Your task to perform on an android device: Open sound settings Image 0: 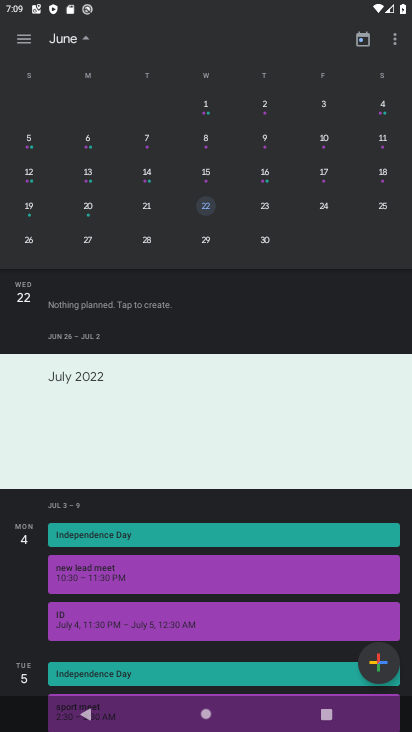
Step 0: press home button
Your task to perform on an android device: Open sound settings Image 1: 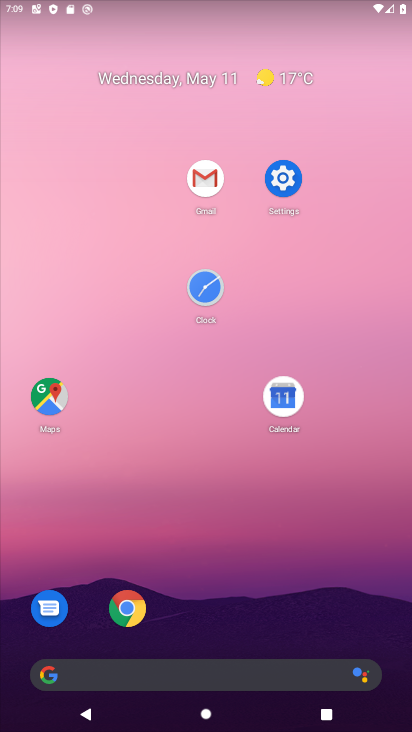
Step 1: click (274, 186)
Your task to perform on an android device: Open sound settings Image 2: 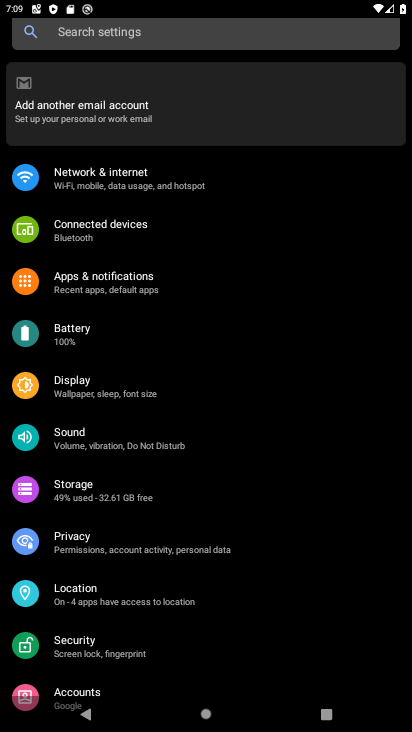
Step 2: click (139, 412)
Your task to perform on an android device: Open sound settings Image 3: 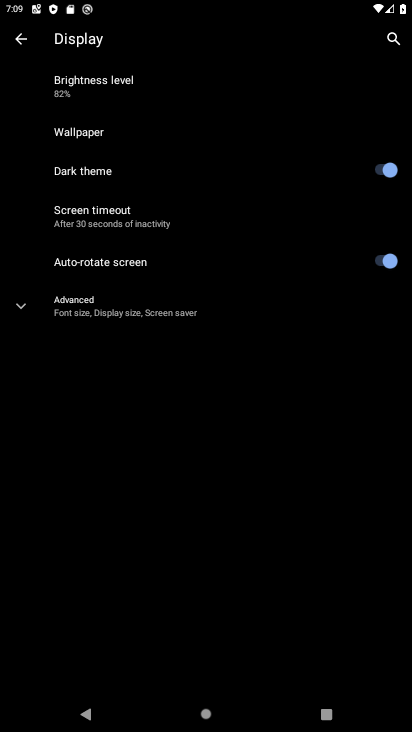
Step 3: click (36, 41)
Your task to perform on an android device: Open sound settings Image 4: 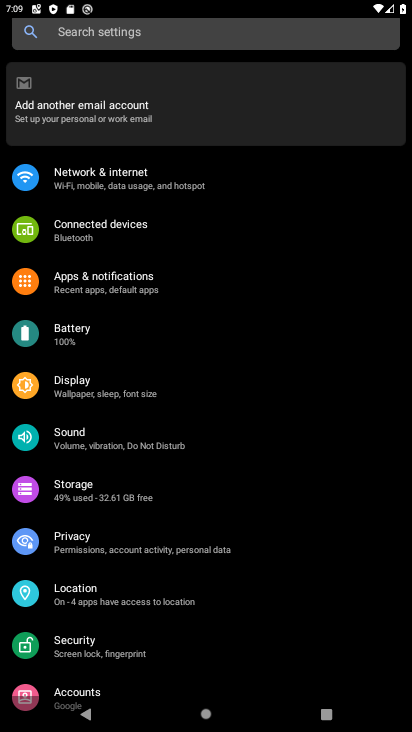
Step 4: click (137, 434)
Your task to perform on an android device: Open sound settings Image 5: 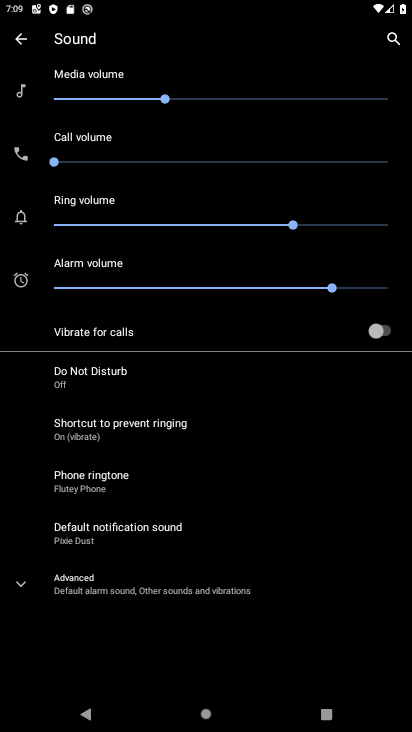
Step 5: task complete